Your task to perform on an android device: Go to location settings Image 0: 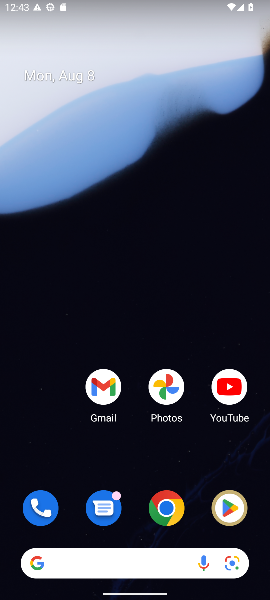
Step 0: drag from (130, 281) to (144, 1)
Your task to perform on an android device: Go to location settings Image 1: 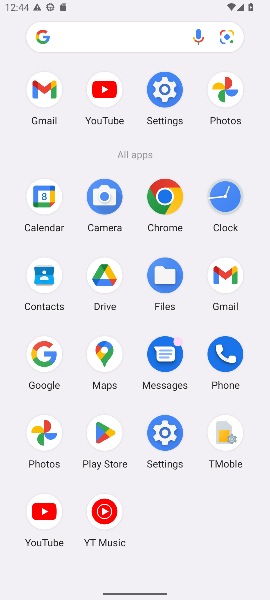
Step 1: click (162, 93)
Your task to perform on an android device: Go to location settings Image 2: 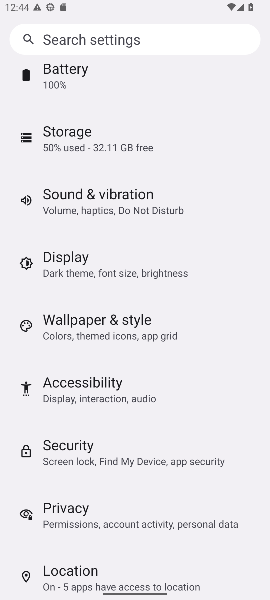
Step 2: click (59, 581)
Your task to perform on an android device: Go to location settings Image 3: 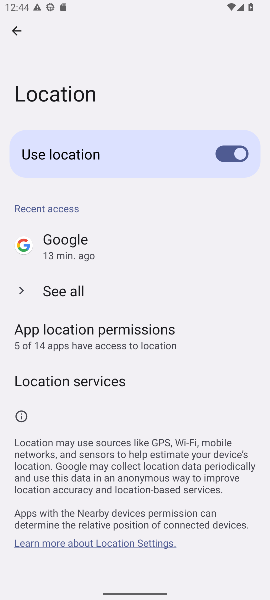
Step 3: task complete